Your task to perform on an android device: Clear all items from cart on amazon. Add razer thresher to the cart on amazon Image 0: 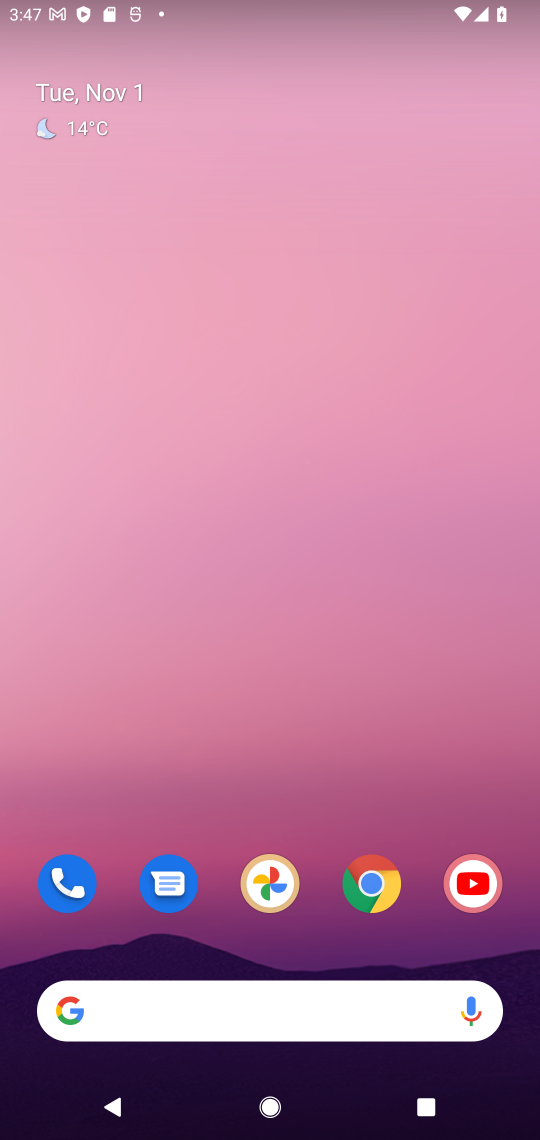
Step 0: click (383, 870)
Your task to perform on an android device: Clear all items from cart on amazon. Add razer thresher to the cart on amazon Image 1: 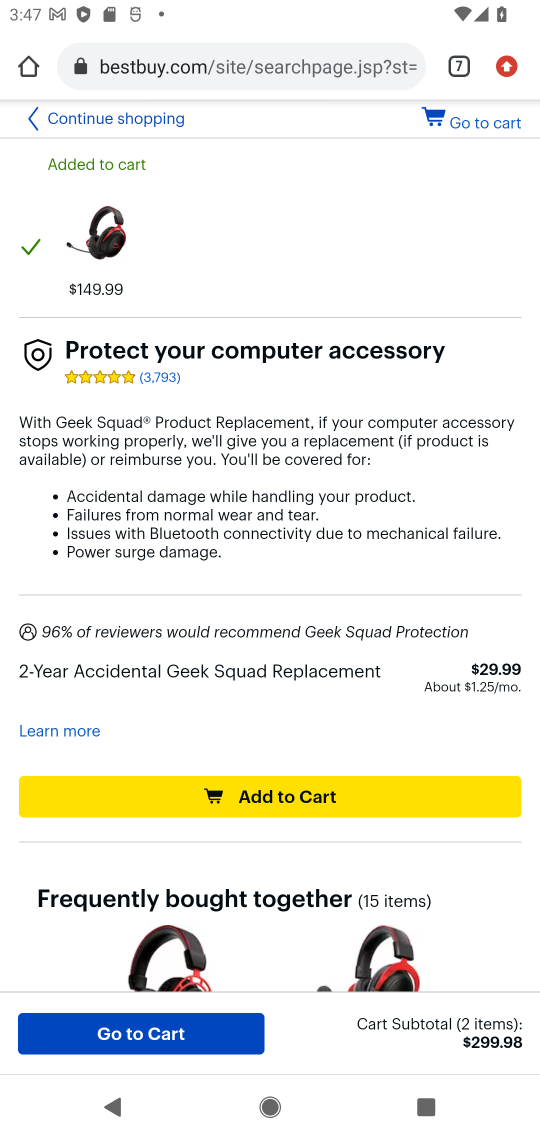
Step 1: click (455, 68)
Your task to perform on an android device: Clear all items from cart on amazon. Add razer thresher to the cart on amazon Image 2: 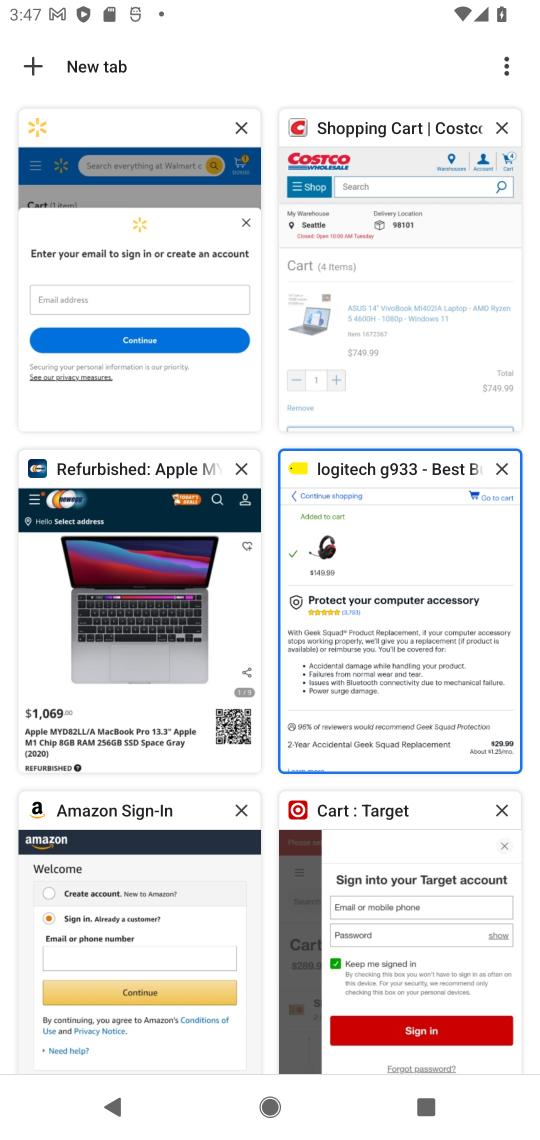
Step 2: click (135, 958)
Your task to perform on an android device: Clear all items from cart on amazon. Add razer thresher to the cart on amazon Image 3: 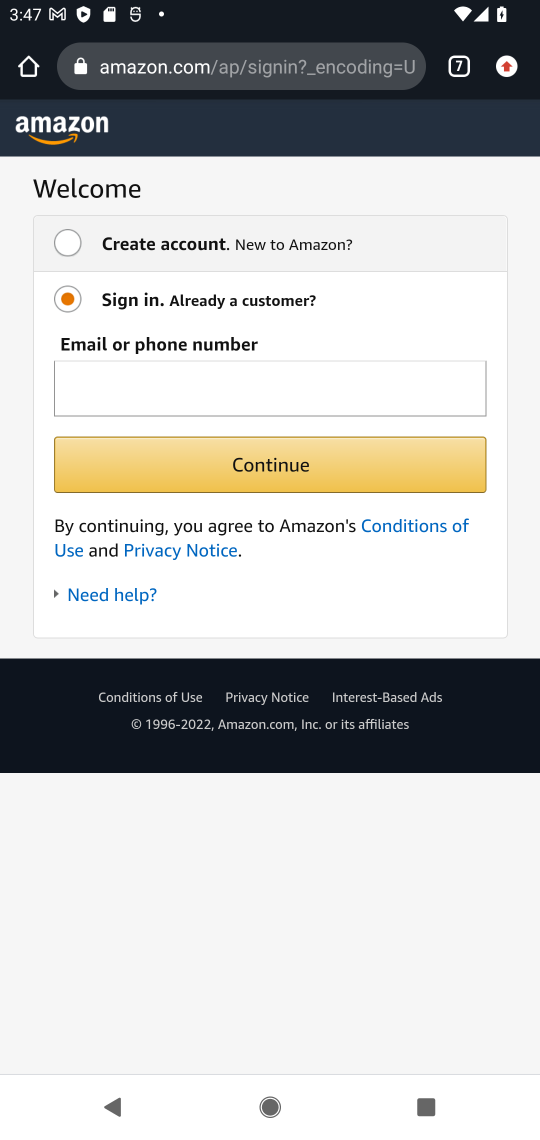
Step 3: press back button
Your task to perform on an android device: Clear all items from cart on amazon. Add razer thresher to the cart on amazon Image 4: 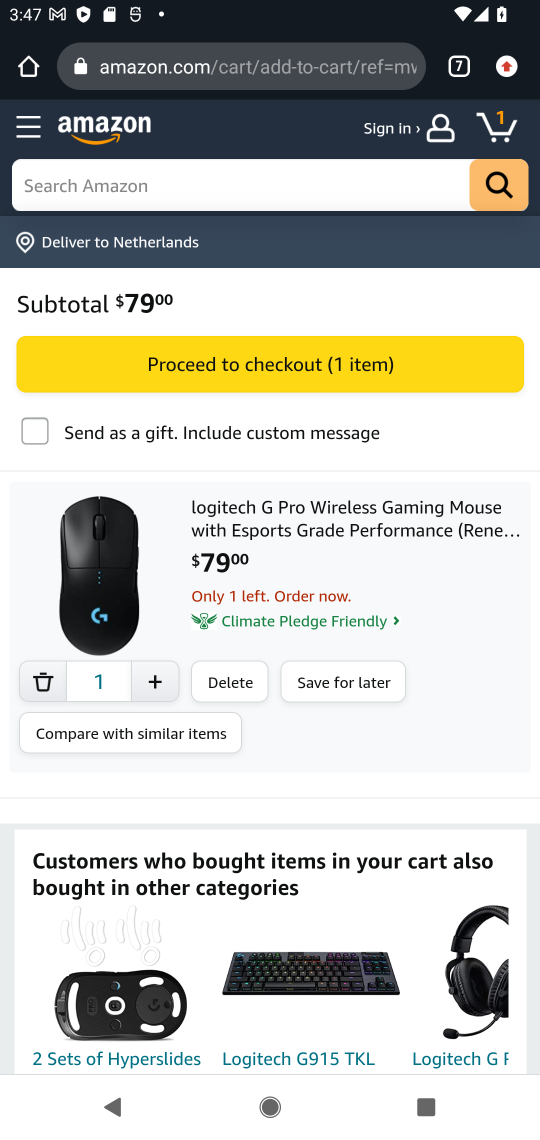
Step 4: click (238, 685)
Your task to perform on an android device: Clear all items from cart on amazon. Add razer thresher to the cart on amazon Image 5: 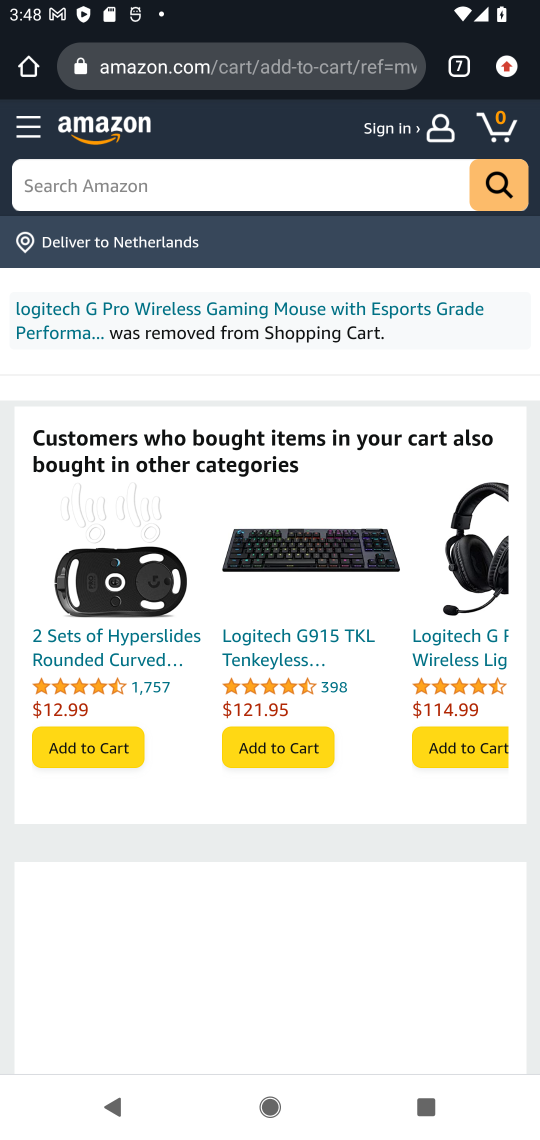
Step 5: click (185, 184)
Your task to perform on an android device: Clear all items from cart on amazon. Add razer thresher to the cart on amazon Image 6: 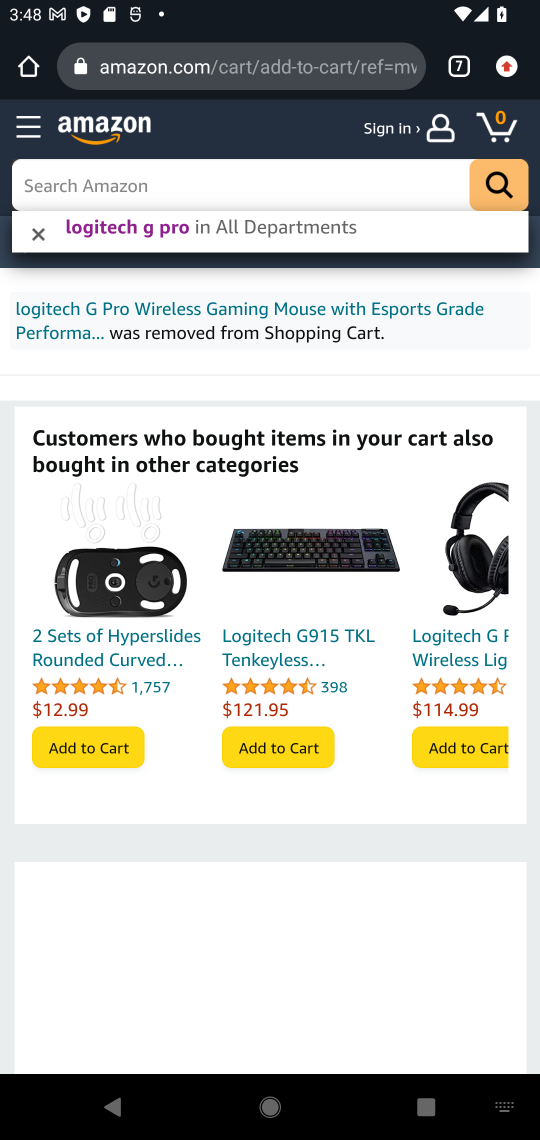
Step 6: type "razer thresher"
Your task to perform on an android device: Clear all items from cart on amazon. Add razer thresher to the cart on amazon Image 7: 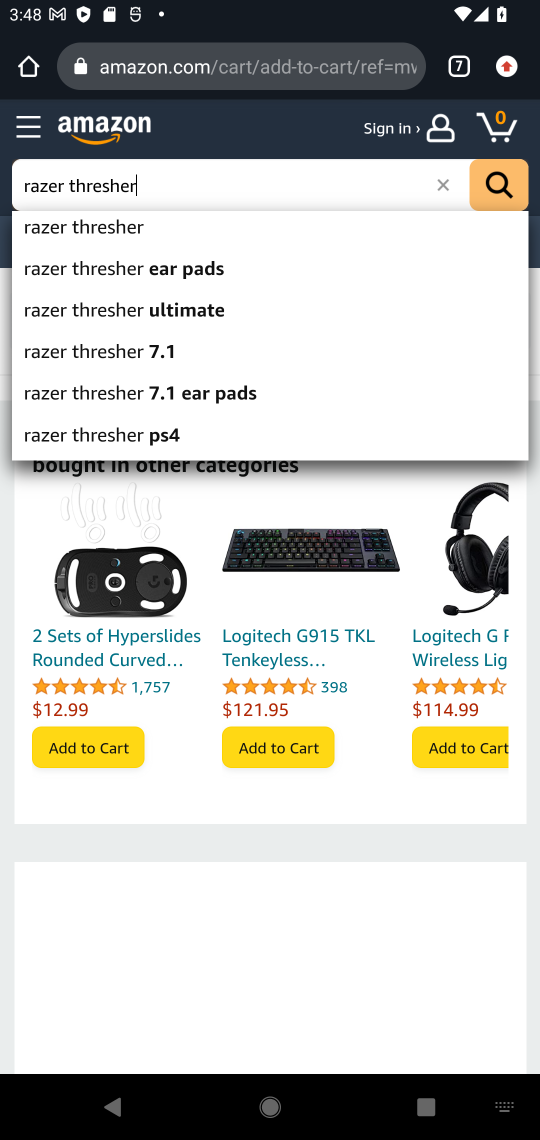
Step 7: click (68, 268)
Your task to perform on an android device: Clear all items from cart on amazon. Add razer thresher to the cart on amazon Image 8: 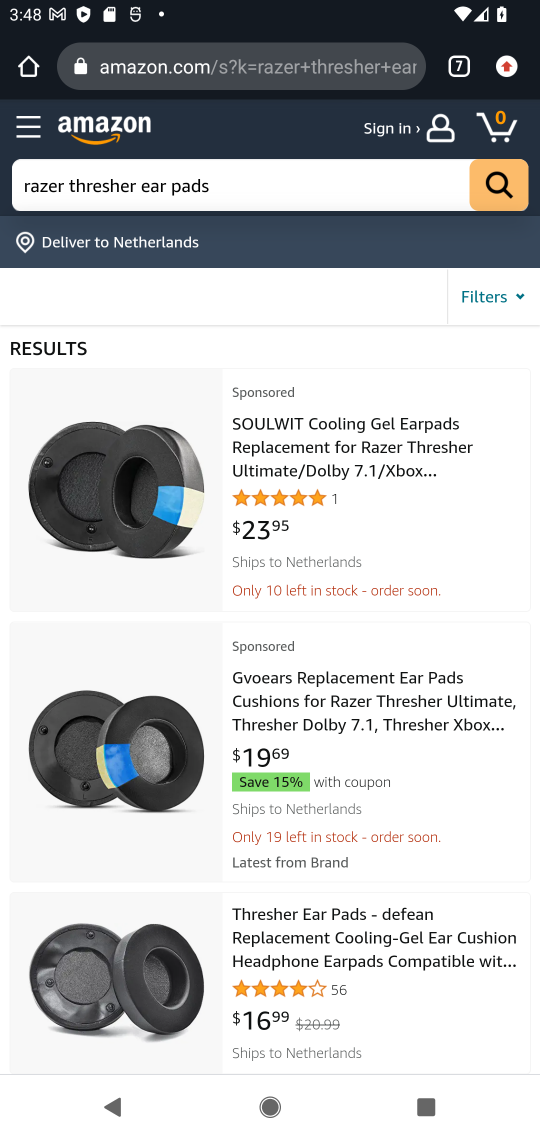
Step 8: click (256, 435)
Your task to perform on an android device: Clear all items from cart on amazon. Add razer thresher to the cart on amazon Image 9: 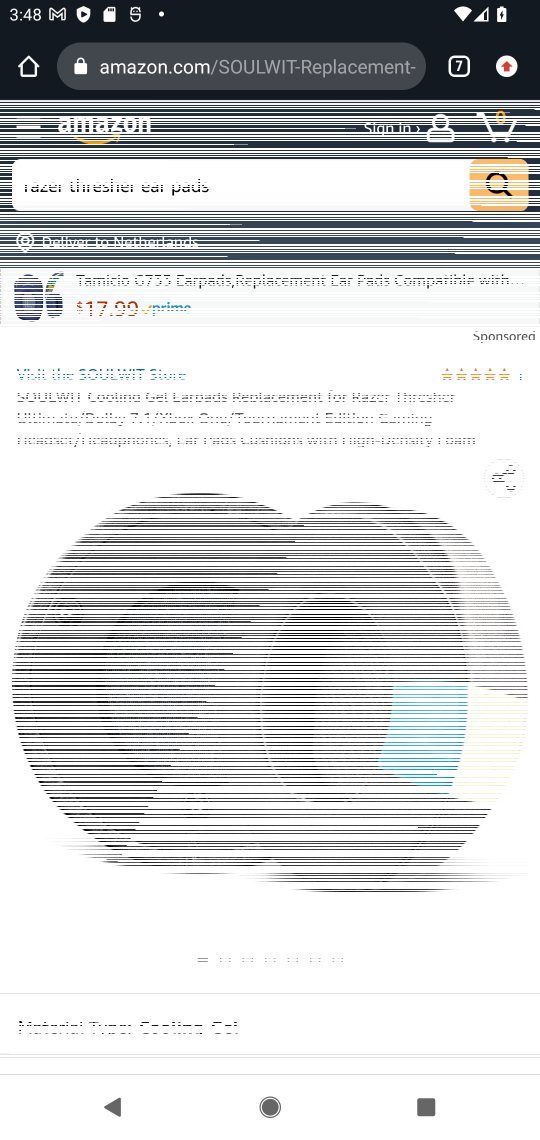
Step 9: click (316, 804)
Your task to perform on an android device: Clear all items from cart on amazon. Add razer thresher to the cart on amazon Image 10: 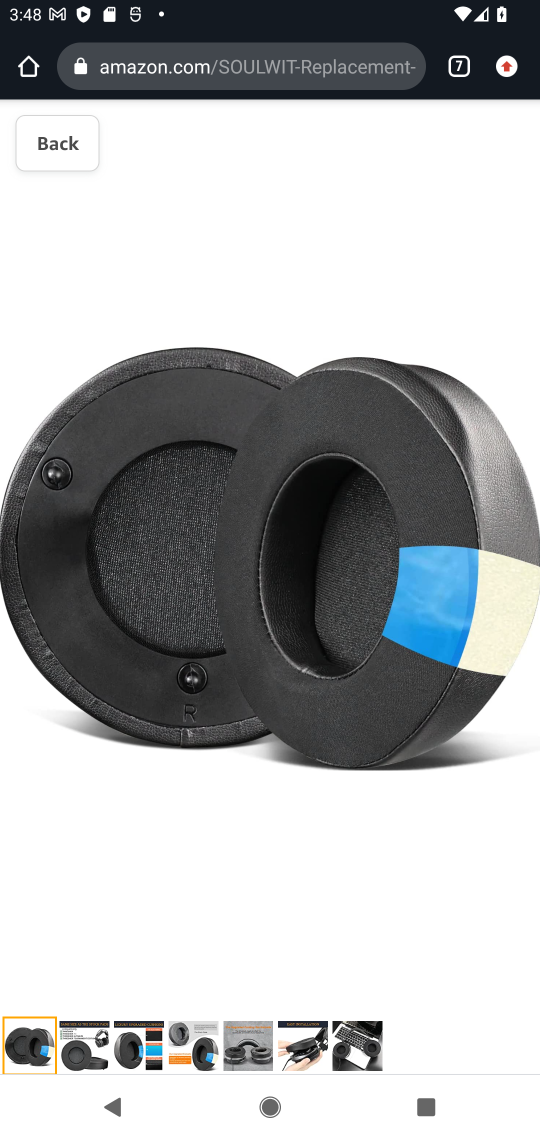
Step 10: press back button
Your task to perform on an android device: Clear all items from cart on amazon. Add razer thresher to the cart on amazon Image 11: 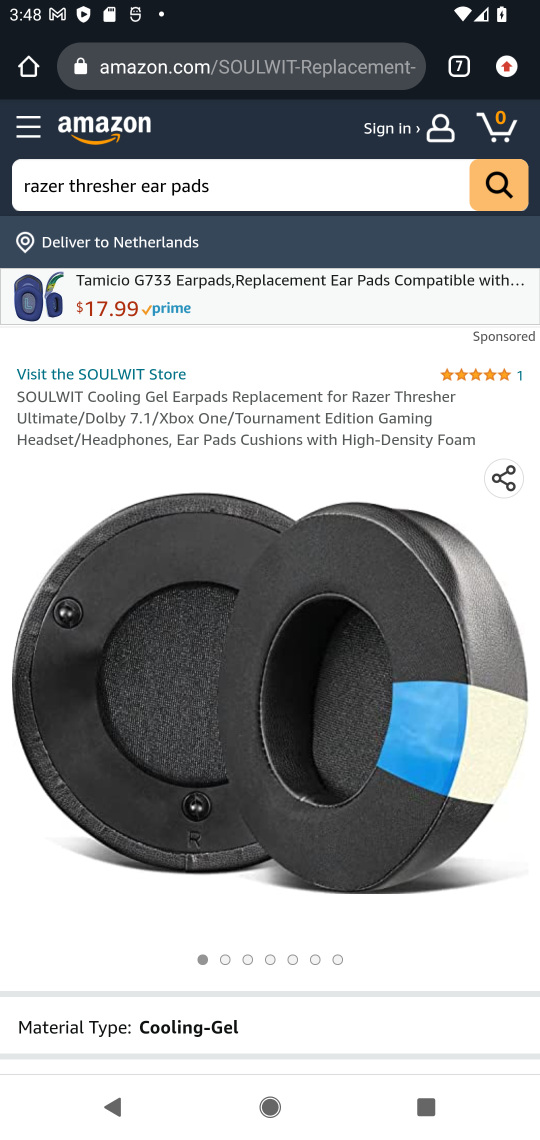
Step 11: drag from (309, 902) to (526, 237)
Your task to perform on an android device: Clear all items from cart on amazon. Add razer thresher to the cart on amazon Image 12: 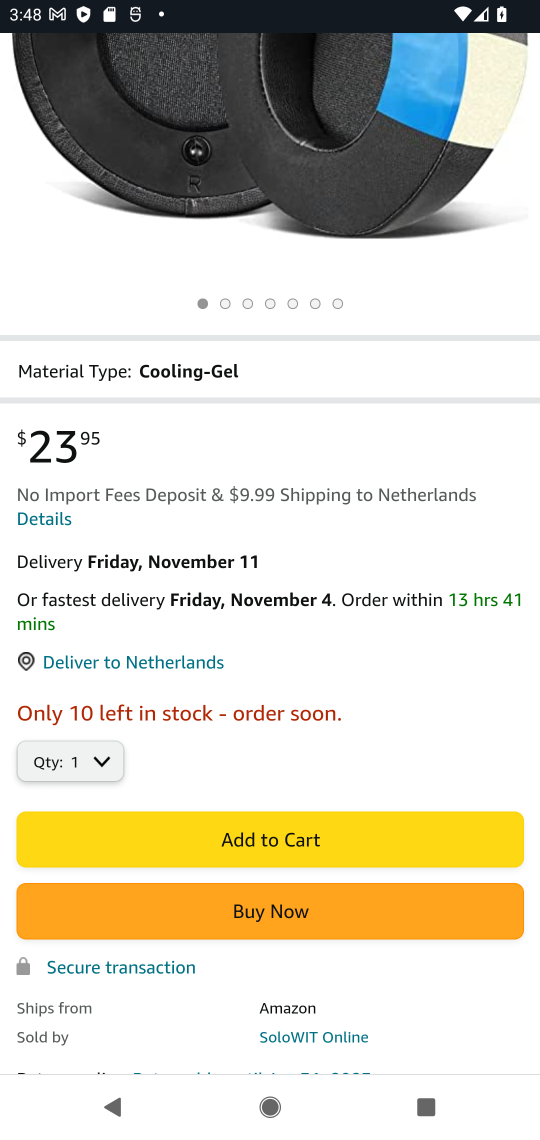
Step 12: click (309, 828)
Your task to perform on an android device: Clear all items from cart on amazon. Add razer thresher to the cart on amazon Image 13: 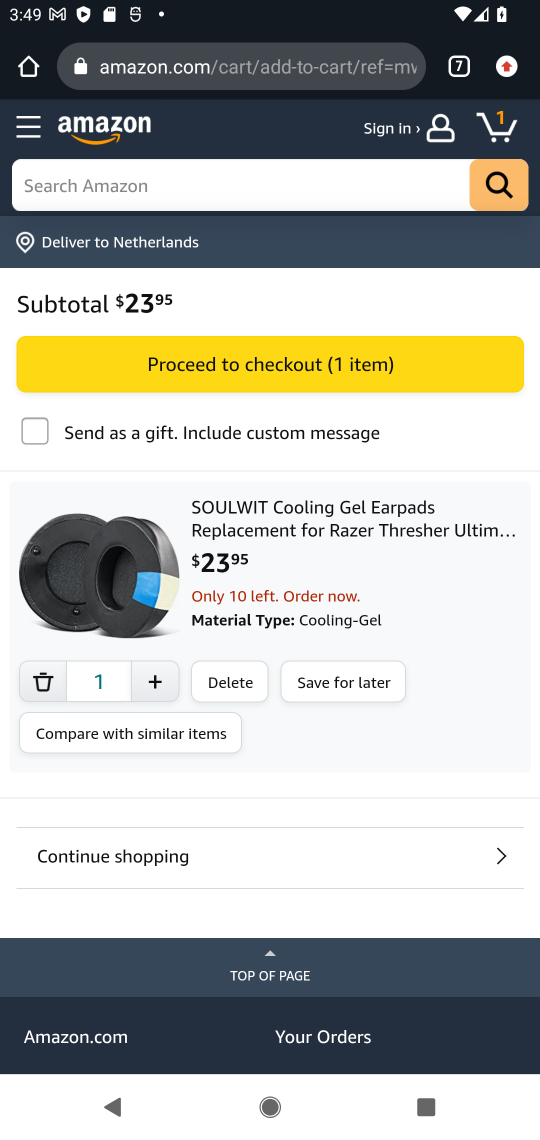
Step 13: task complete